Your task to perform on an android device: toggle javascript in the chrome app Image 0: 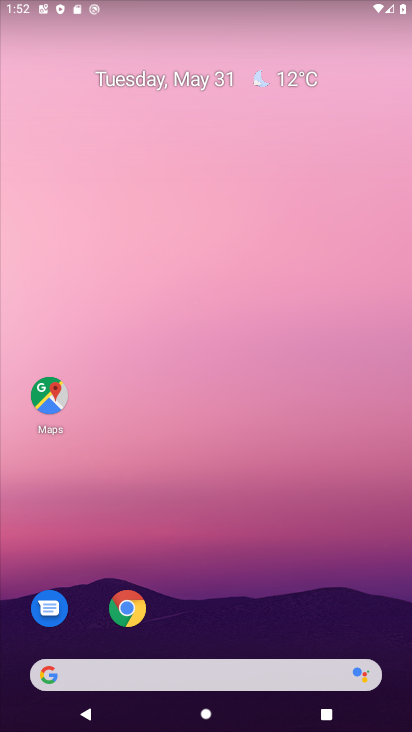
Step 0: drag from (346, 568) to (331, 225)
Your task to perform on an android device: toggle javascript in the chrome app Image 1: 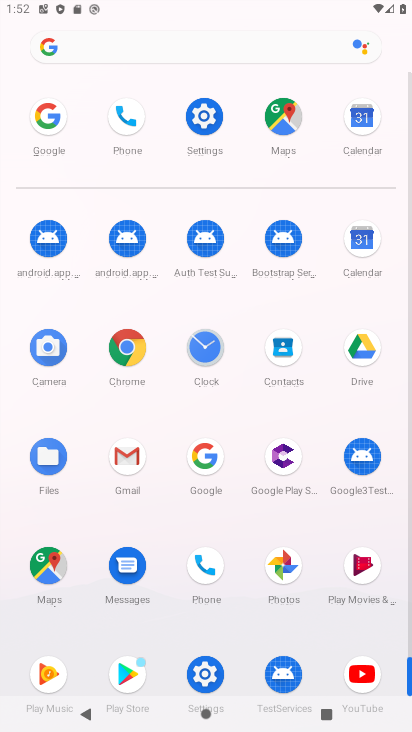
Step 1: click (117, 347)
Your task to perform on an android device: toggle javascript in the chrome app Image 2: 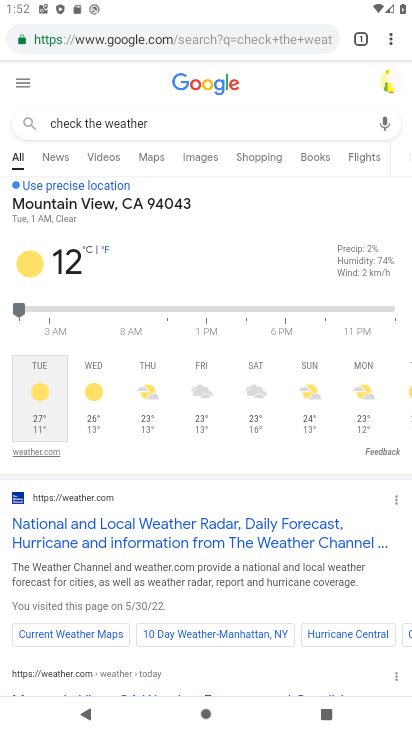
Step 2: drag from (396, 43) to (265, 434)
Your task to perform on an android device: toggle javascript in the chrome app Image 3: 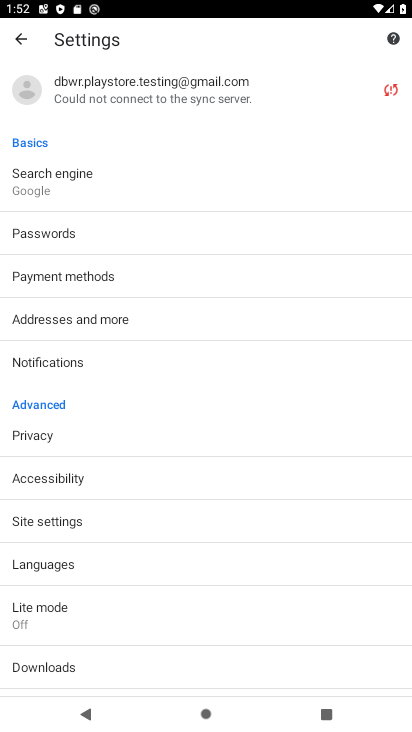
Step 3: drag from (181, 569) to (213, 324)
Your task to perform on an android device: toggle javascript in the chrome app Image 4: 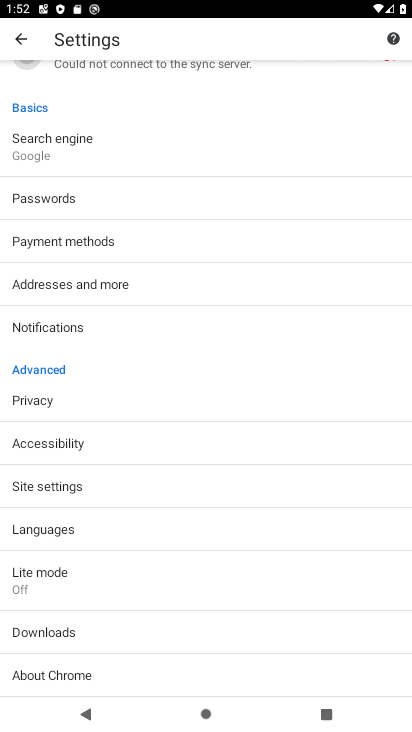
Step 4: click (123, 499)
Your task to perform on an android device: toggle javascript in the chrome app Image 5: 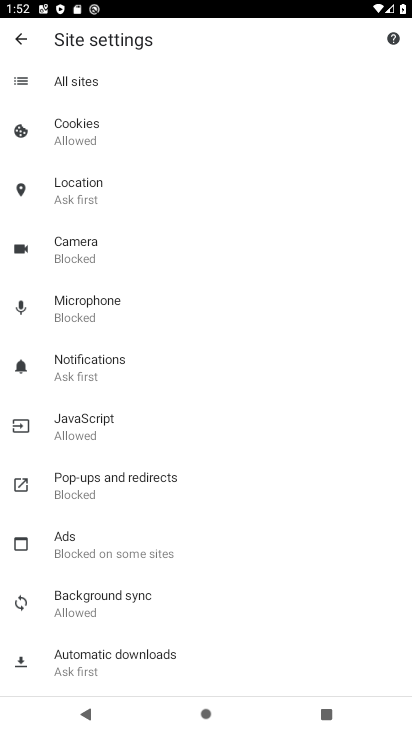
Step 5: click (110, 420)
Your task to perform on an android device: toggle javascript in the chrome app Image 6: 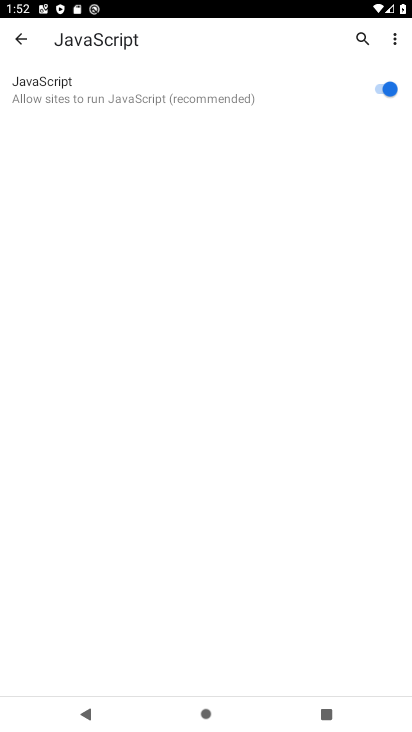
Step 6: click (382, 89)
Your task to perform on an android device: toggle javascript in the chrome app Image 7: 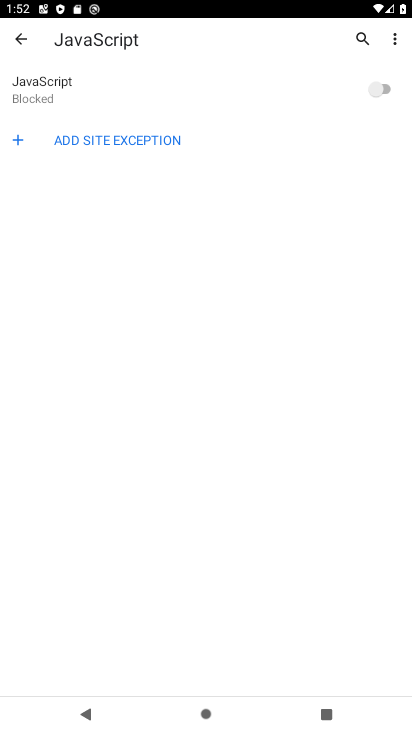
Step 7: task complete